Your task to perform on an android device: Open calendar and show me the first week of next month Image 0: 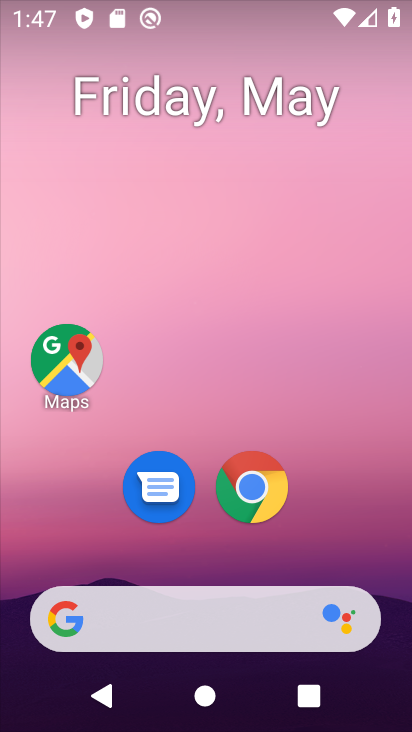
Step 0: drag from (374, 564) to (282, 7)
Your task to perform on an android device: Open calendar and show me the first week of next month Image 1: 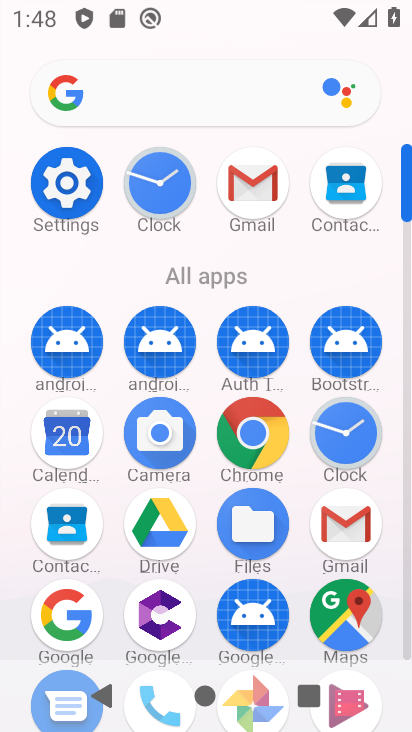
Step 1: click (79, 446)
Your task to perform on an android device: Open calendar and show me the first week of next month Image 2: 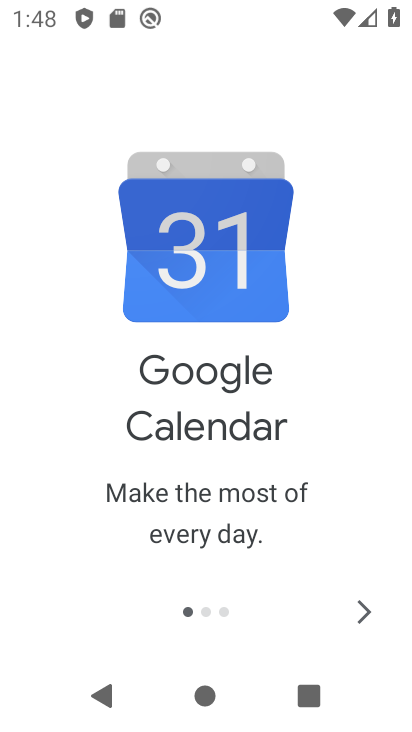
Step 2: click (358, 611)
Your task to perform on an android device: Open calendar and show me the first week of next month Image 3: 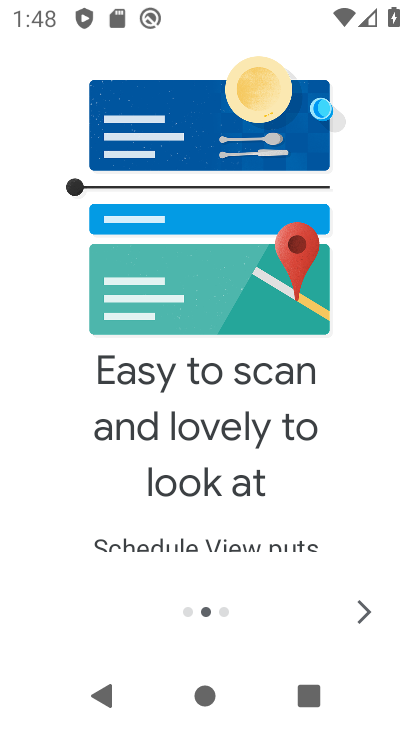
Step 3: click (358, 611)
Your task to perform on an android device: Open calendar and show me the first week of next month Image 4: 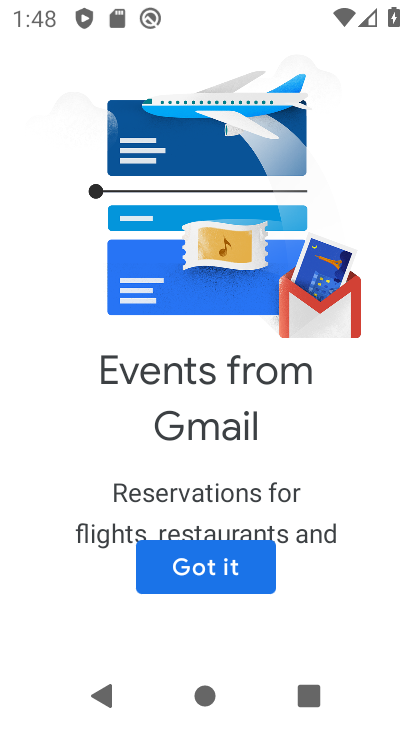
Step 4: click (358, 611)
Your task to perform on an android device: Open calendar and show me the first week of next month Image 5: 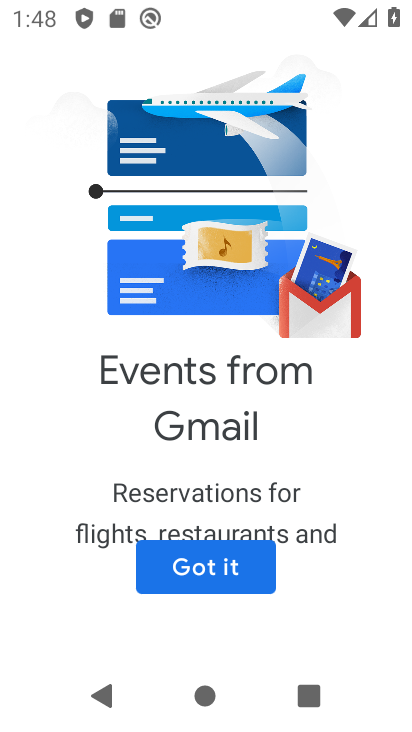
Step 5: click (217, 575)
Your task to perform on an android device: Open calendar and show me the first week of next month Image 6: 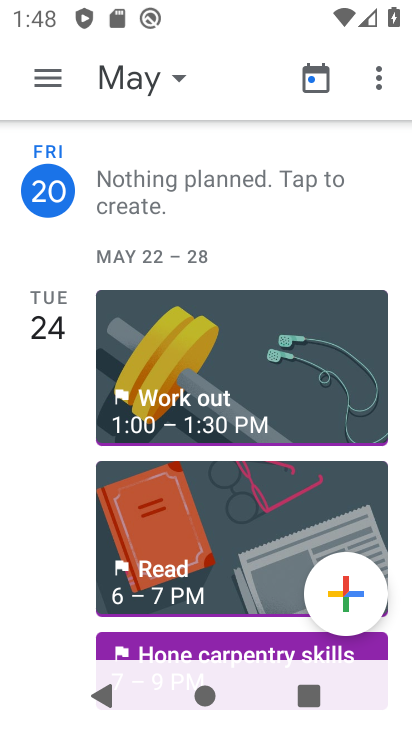
Step 6: click (179, 82)
Your task to perform on an android device: Open calendar and show me the first week of next month Image 7: 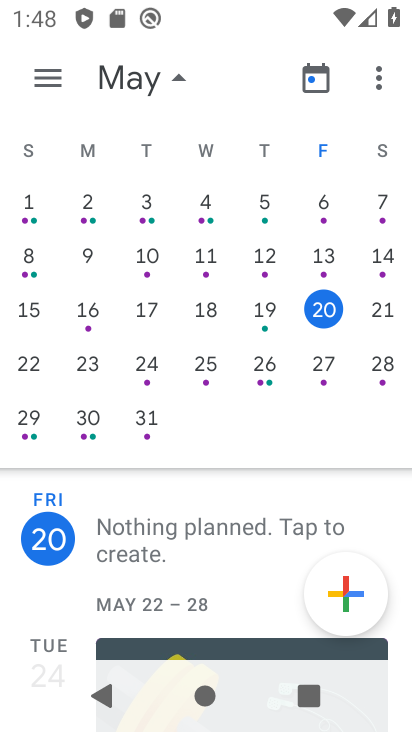
Step 7: drag from (342, 355) to (24, 346)
Your task to perform on an android device: Open calendar and show me the first week of next month Image 8: 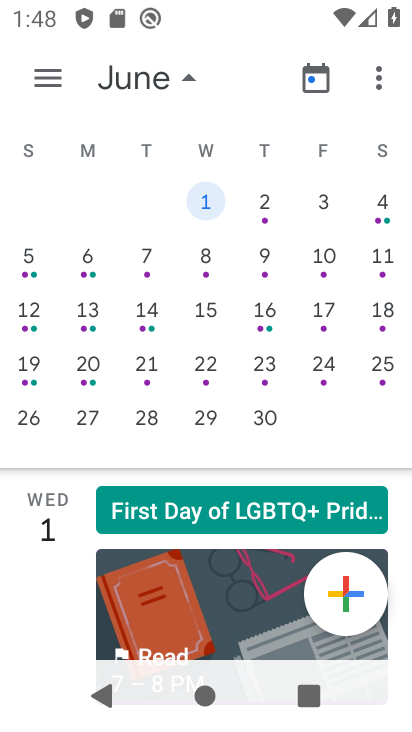
Step 8: click (44, 76)
Your task to perform on an android device: Open calendar and show me the first week of next month Image 9: 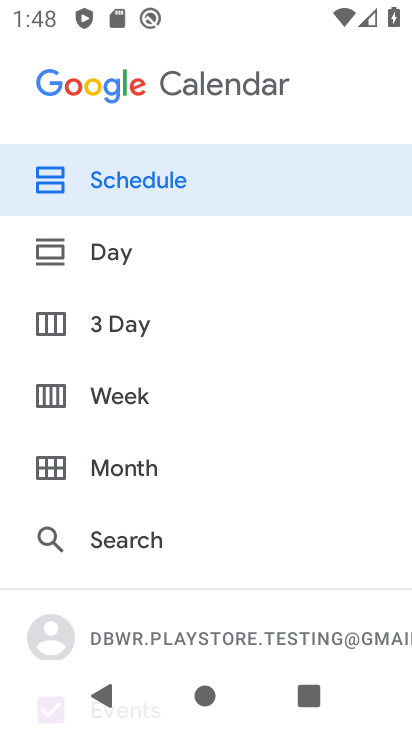
Step 9: click (70, 391)
Your task to perform on an android device: Open calendar and show me the first week of next month Image 10: 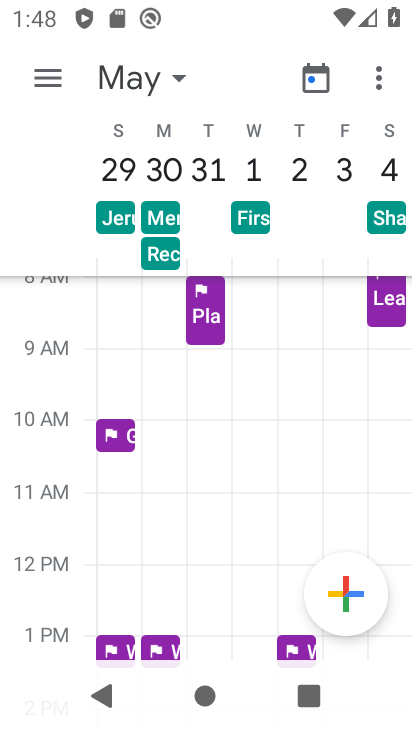
Step 10: task complete